Your task to perform on an android device: check out phone information Image 0: 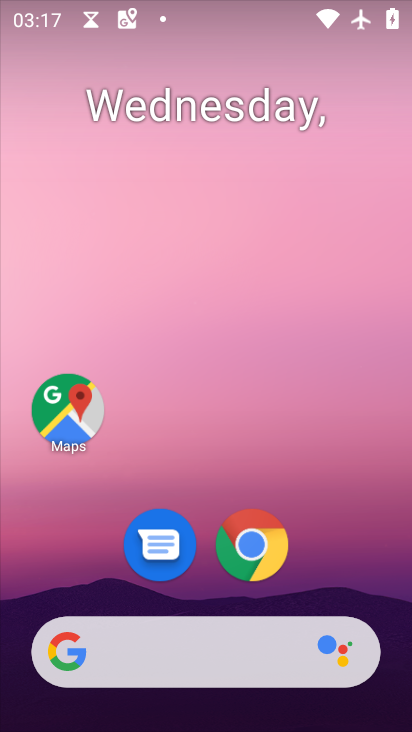
Step 0: press home button
Your task to perform on an android device: check out phone information Image 1: 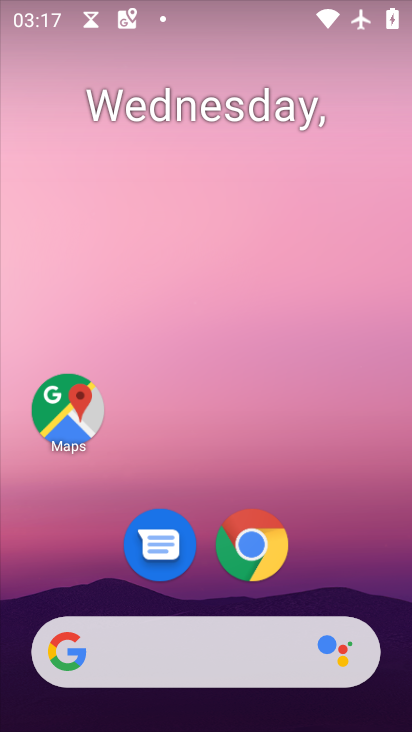
Step 1: drag from (182, 665) to (371, 76)
Your task to perform on an android device: check out phone information Image 2: 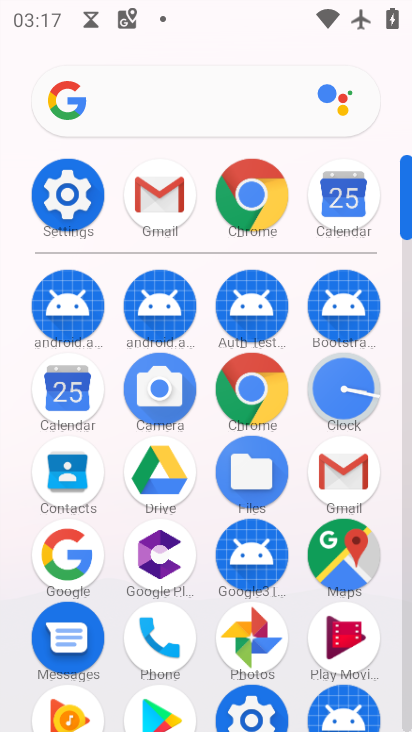
Step 2: click (81, 196)
Your task to perform on an android device: check out phone information Image 3: 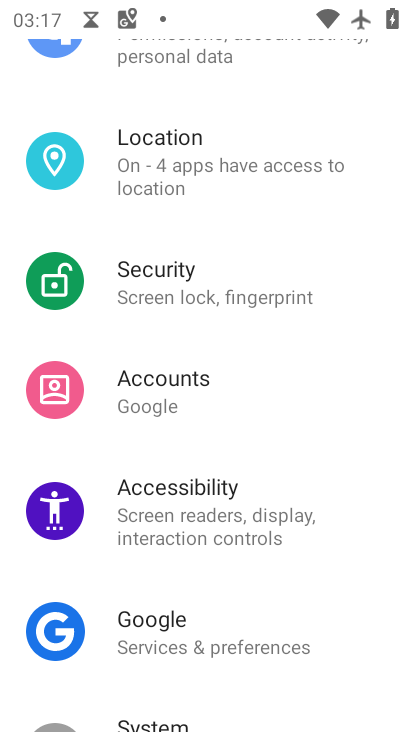
Step 3: drag from (202, 657) to (386, 27)
Your task to perform on an android device: check out phone information Image 4: 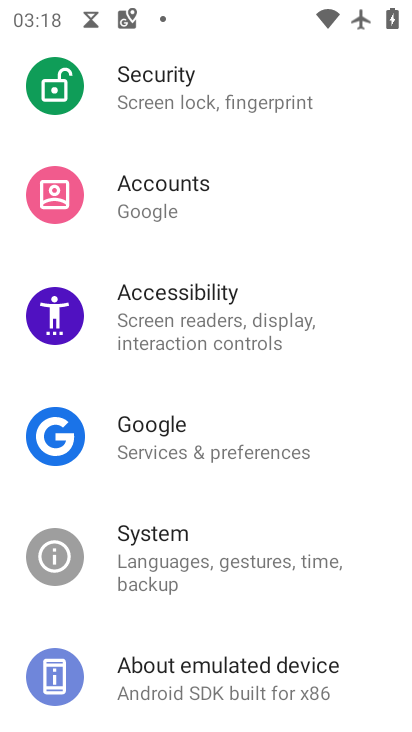
Step 4: click (174, 663)
Your task to perform on an android device: check out phone information Image 5: 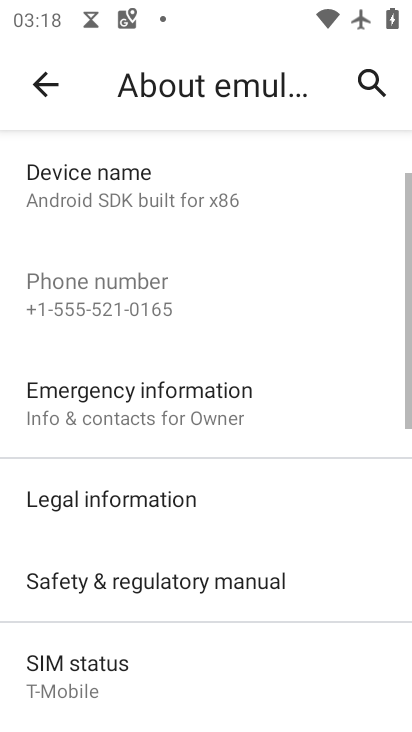
Step 5: task complete